Your task to perform on an android device: turn off smart reply in the gmail app Image 0: 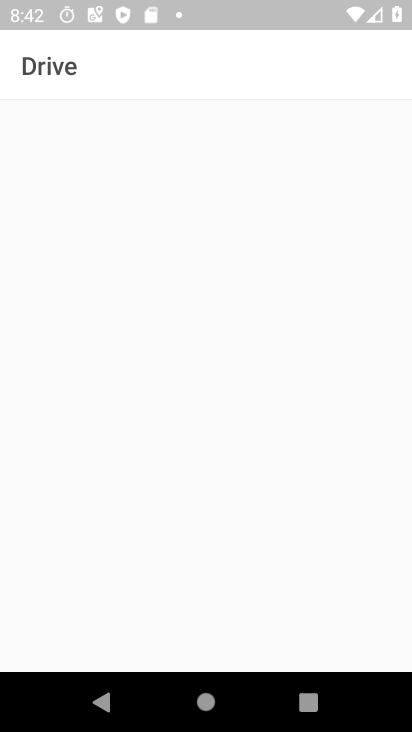
Step 0: drag from (239, 353) to (234, 77)
Your task to perform on an android device: turn off smart reply in the gmail app Image 1: 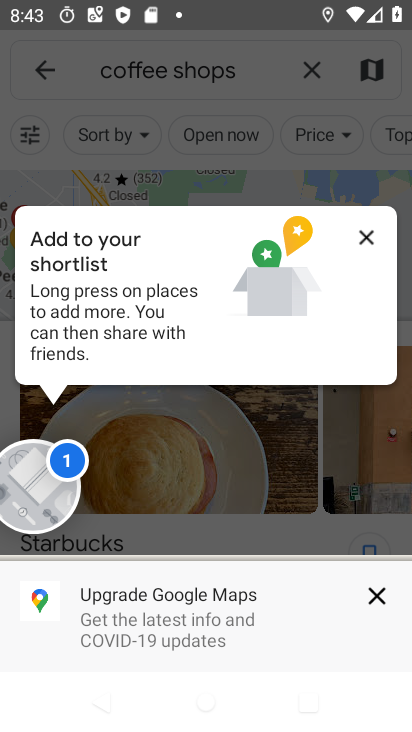
Step 1: press home button
Your task to perform on an android device: turn off smart reply in the gmail app Image 2: 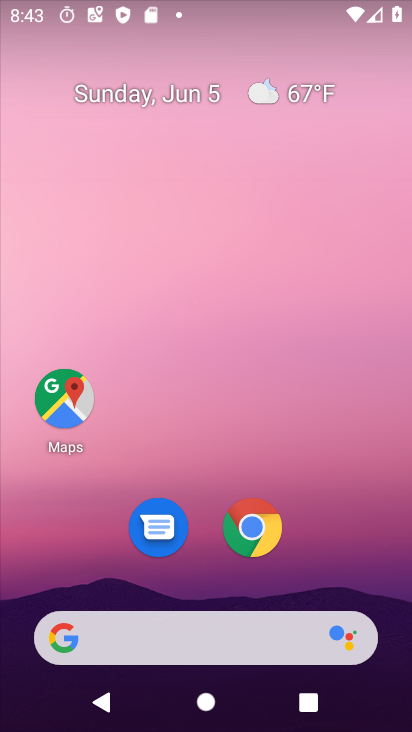
Step 2: drag from (242, 727) to (171, 107)
Your task to perform on an android device: turn off smart reply in the gmail app Image 3: 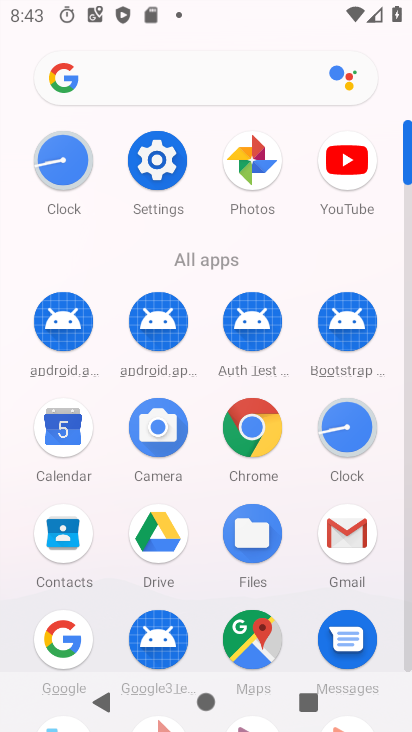
Step 3: click (349, 541)
Your task to perform on an android device: turn off smart reply in the gmail app Image 4: 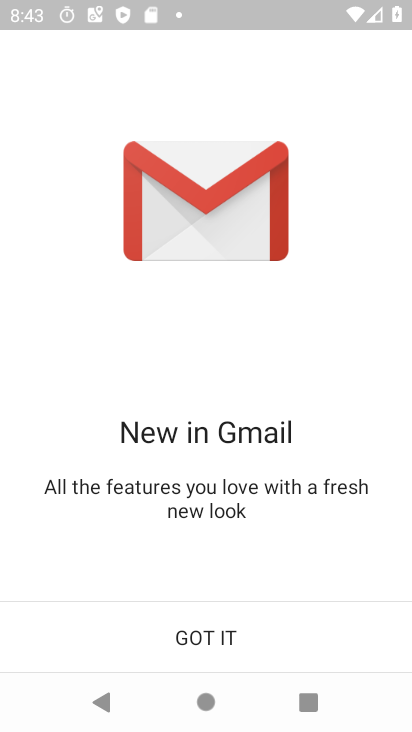
Step 4: click (208, 633)
Your task to perform on an android device: turn off smart reply in the gmail app Image 5: 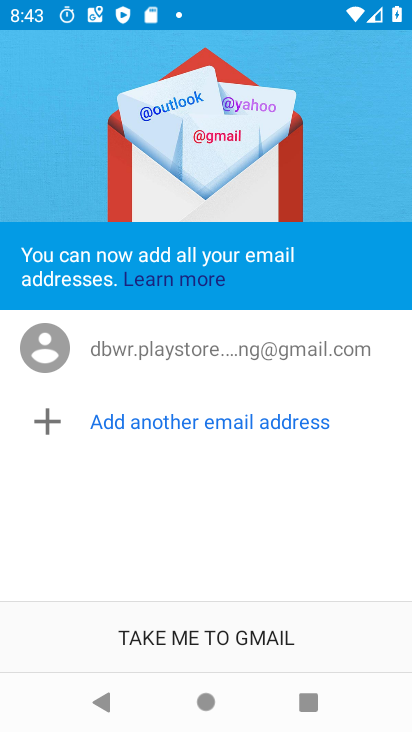
Step 5: click (208, 633)
Your task to perform on an android device: turn off smart reply in the gmail app Image 6: 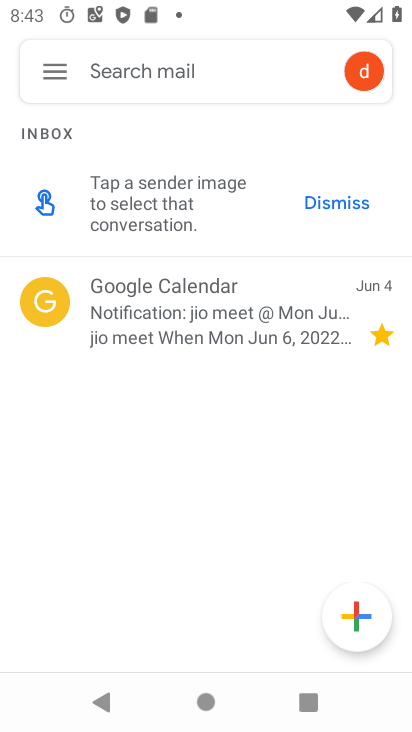
Step 6: click (58, 71)
Your task to perform on an android device: turn off smart reply in the gmail app Image 7: 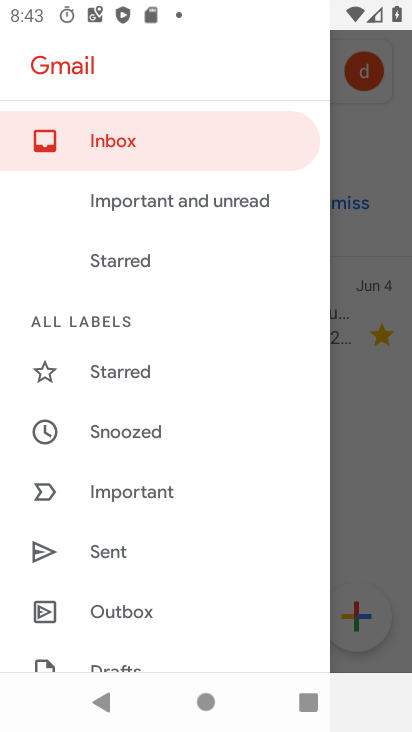
Step 7: drag from (172, 646) to (131, 251)
Your task to perform on an android device: turn off smart reply in the gmail app Image 8: 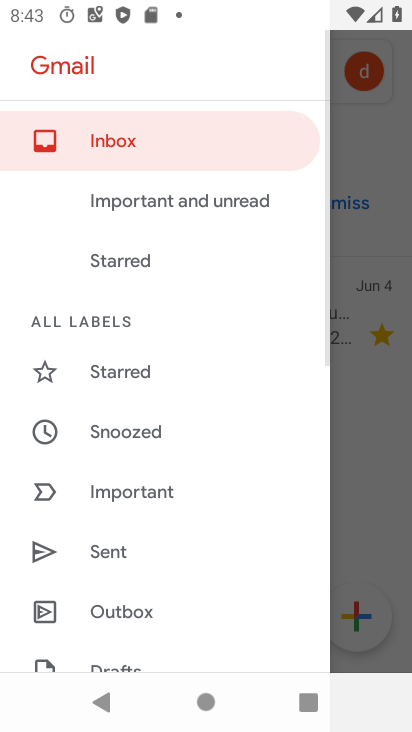
Step 8: drag from (121, 591) to (122, 300)
Your task to perform on an android device: turn off smart reply in the gmail app Image 9: 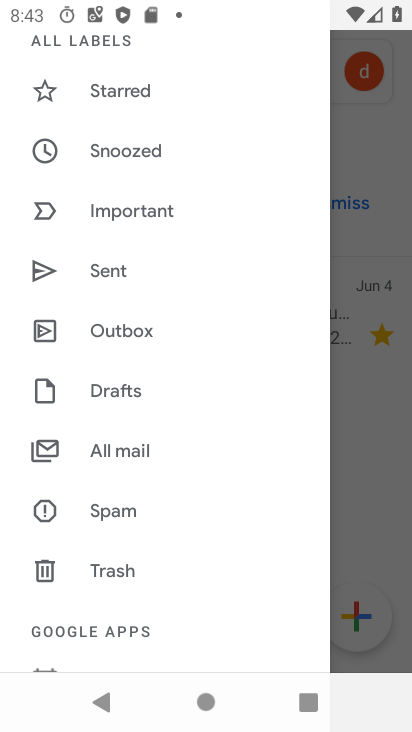
Step 9: drag from (148, 633) to (150, 225)
Your task to perform on an android device: turn off smart reply in the gmail app Image 10: 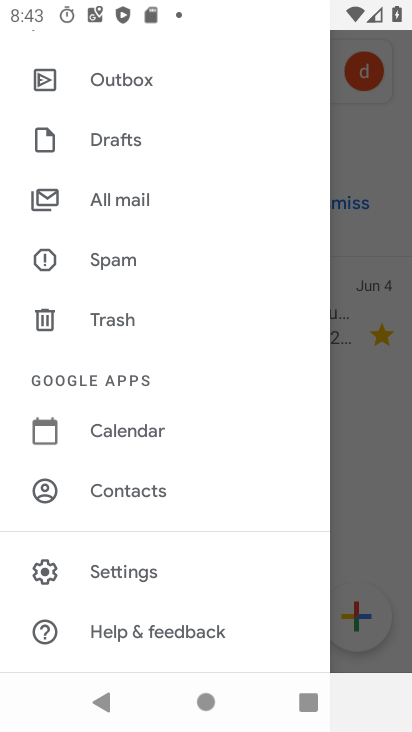
Step 10: click (123, 569)
Your task to perform on an android device: turn off smart reply in the gmail app Image 11: 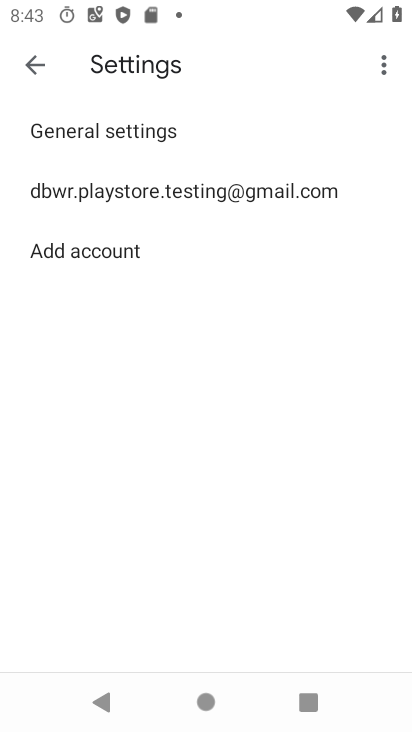
Step 11: click (196, 185)
Your task to perform on an android device: turn off smart reply in the gmail app Image 12: 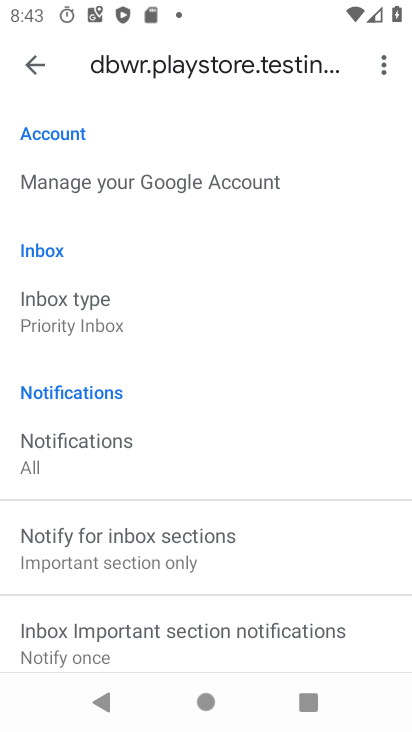
Step 12: drag from (104, 629) to (112, 254)
Your task to perform on an android device: turn off smart reply in the gmail app Image 13: 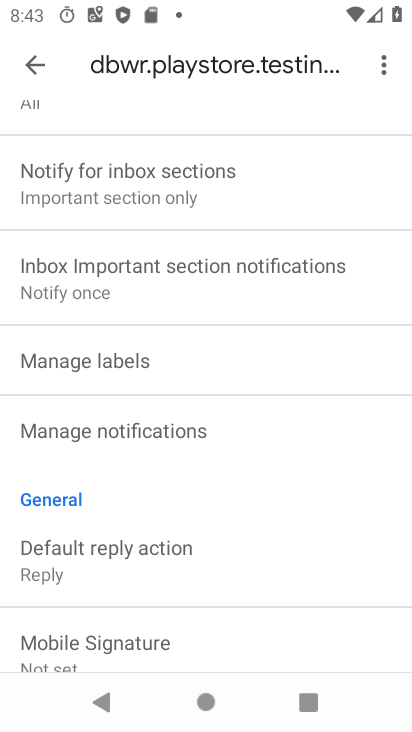
Step 13: drag from (206, 652) to (215, 322)
Your task to perform on an android device: turn off smart reply in the gmail app Image 14: 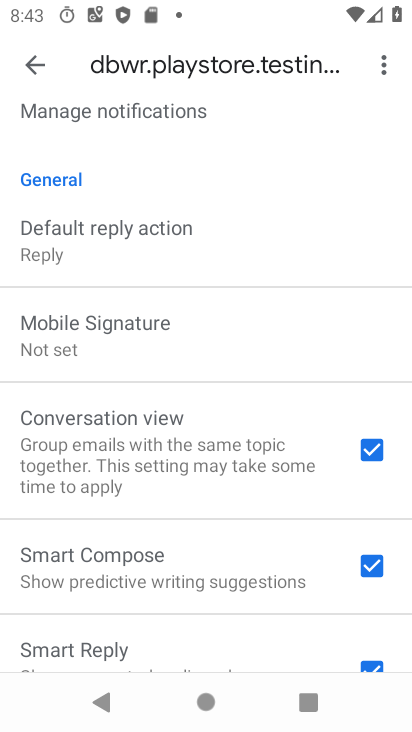
Step 14: drag from (227, 644) to (376, 617)
Your task to perform on an android device: turn off smart reply in the gmail app Image 15: 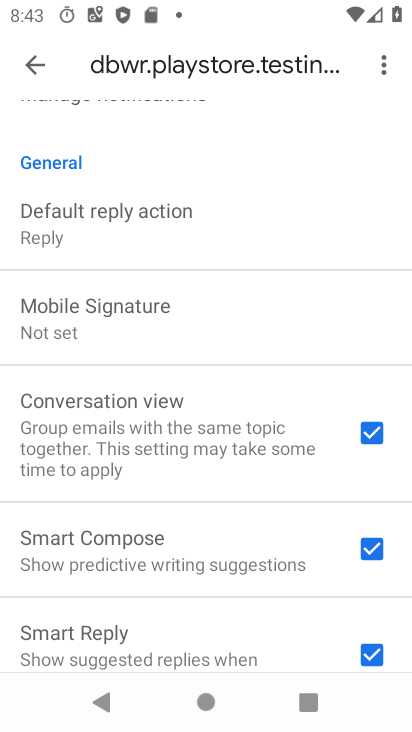
Step 15: click (372, 649)
Your task to perform on an android device: turn off smart reply in the gmail app Image 16: 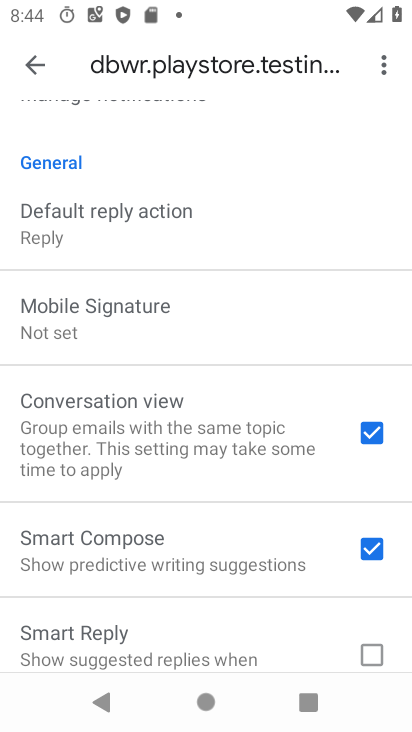
Step 16: task complete